Your task to perform on an android device: Open Chrome and go to the settings page Image 0: 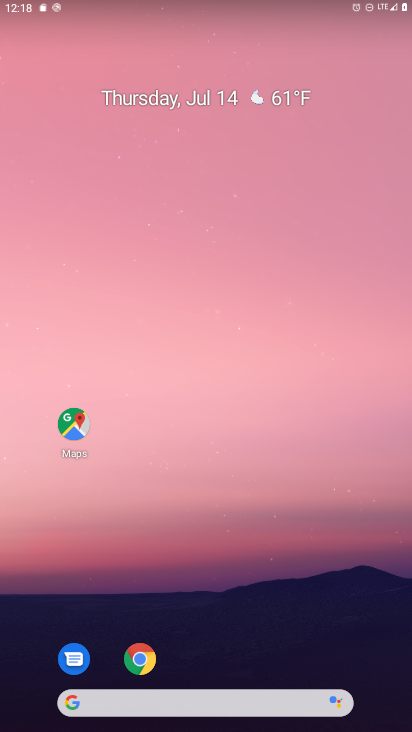
Step 0: click (139, 663)
Your task to perform on an android device: Open Chrome and go to the settings page Image 1: 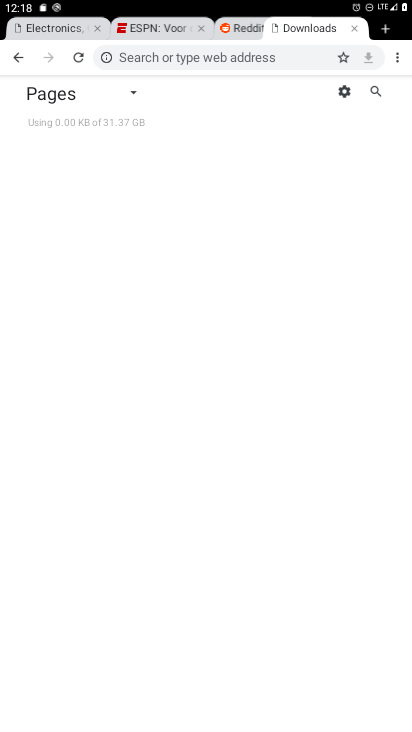
Step 1: click (399, 62)
Your task to perform on an android device: Open Chrome and go to the settings page Image 2: 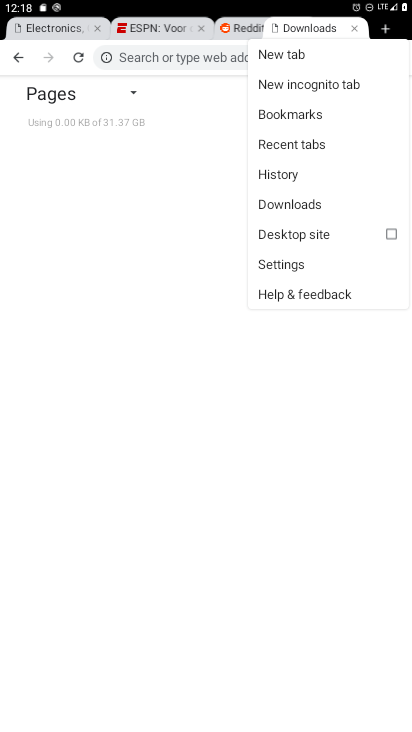
Step 2: click (285, 263)
Your task to perform on an android device: Open Chrome and go to the settings page Image 3: 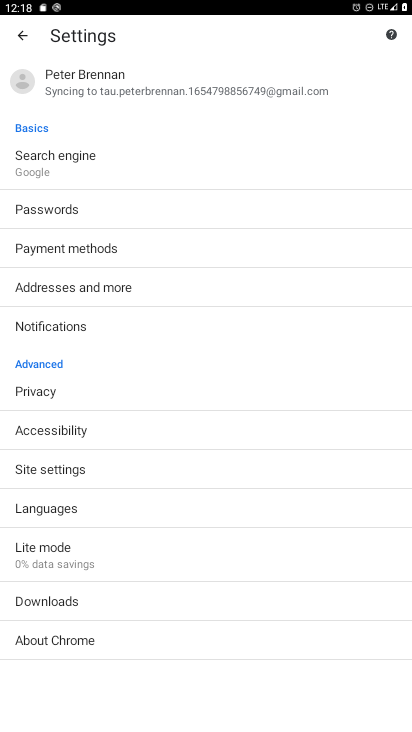
Step 3: task complete